Your task to perform on an android device: Go to Reddit.com Image 0: 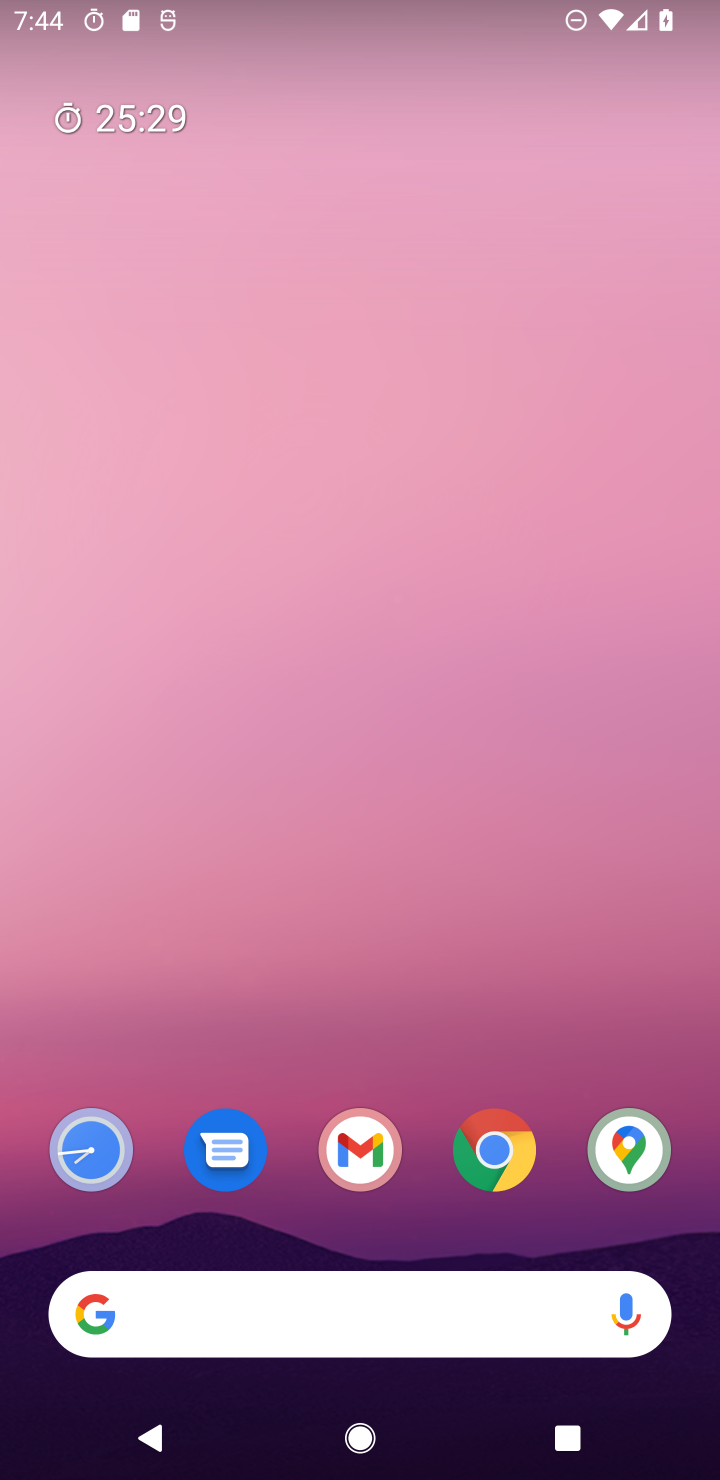
Step 0: drag from (495, 1130) to (519, 117)
Your task to perform on an android device: Go to Reddit.com Image 1: 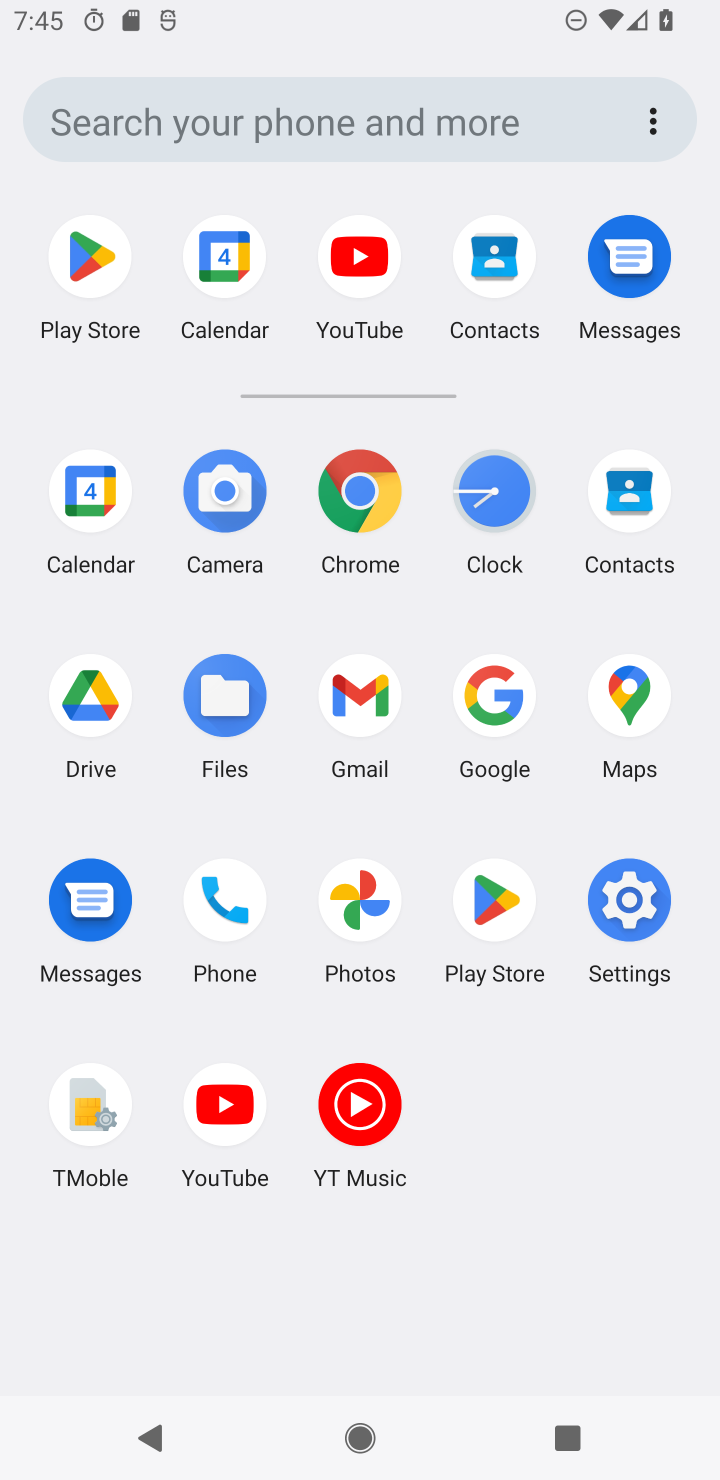
Step 1: click (357, 465)
Your task to perform on an android device: Go to Reddit.com Image 2: 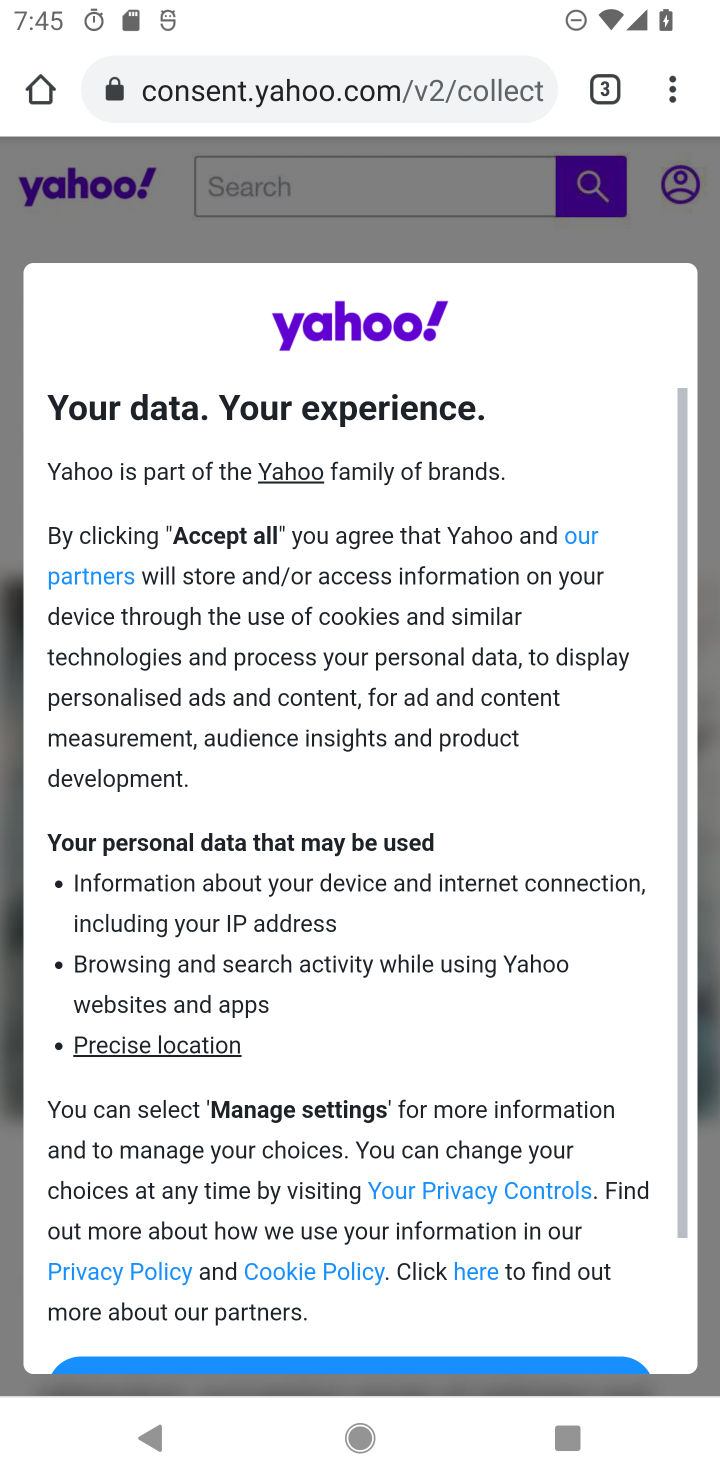
Step 2: click (378, 70)
Your task to perform on an android device: Go to Reddit.com Image 3: 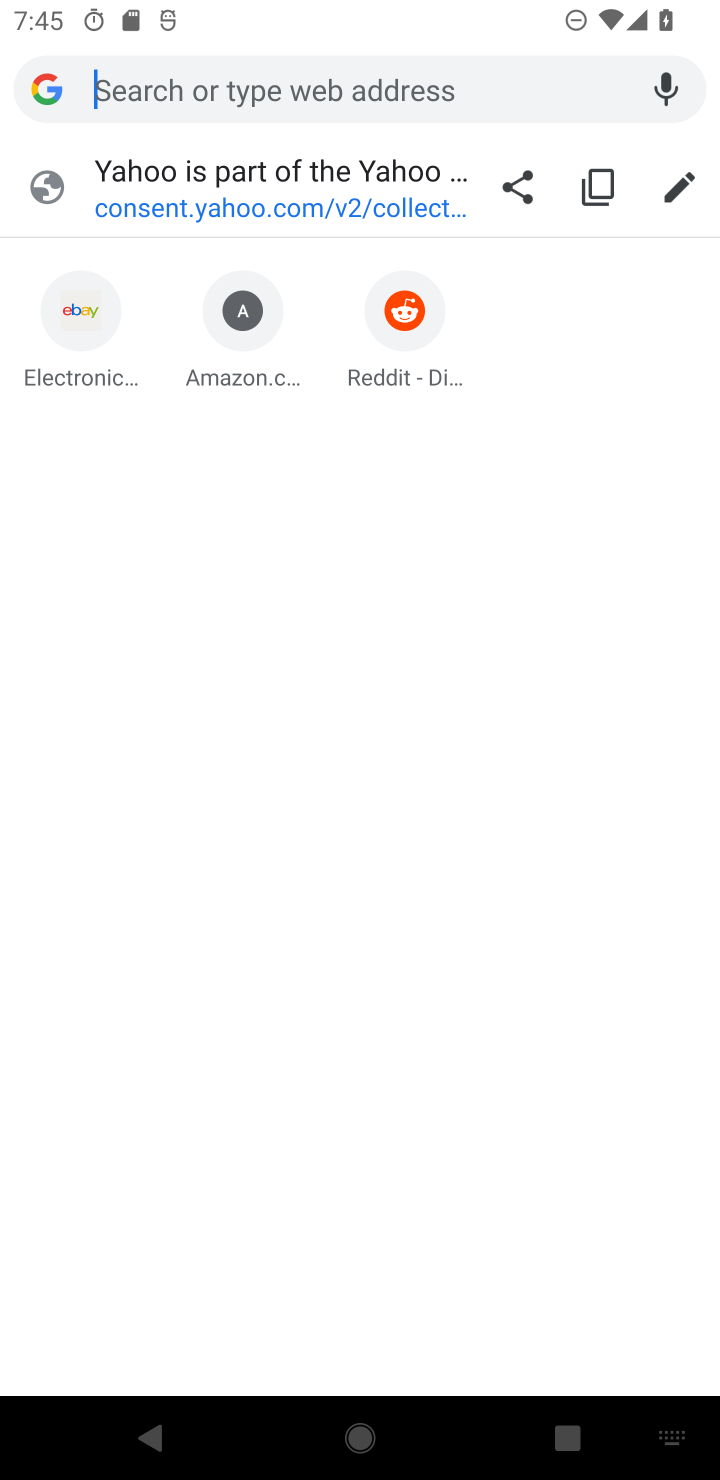
Step 3: type "reddit.com"
Your task to perform on an android device: Go to Reddit.com Image 4: 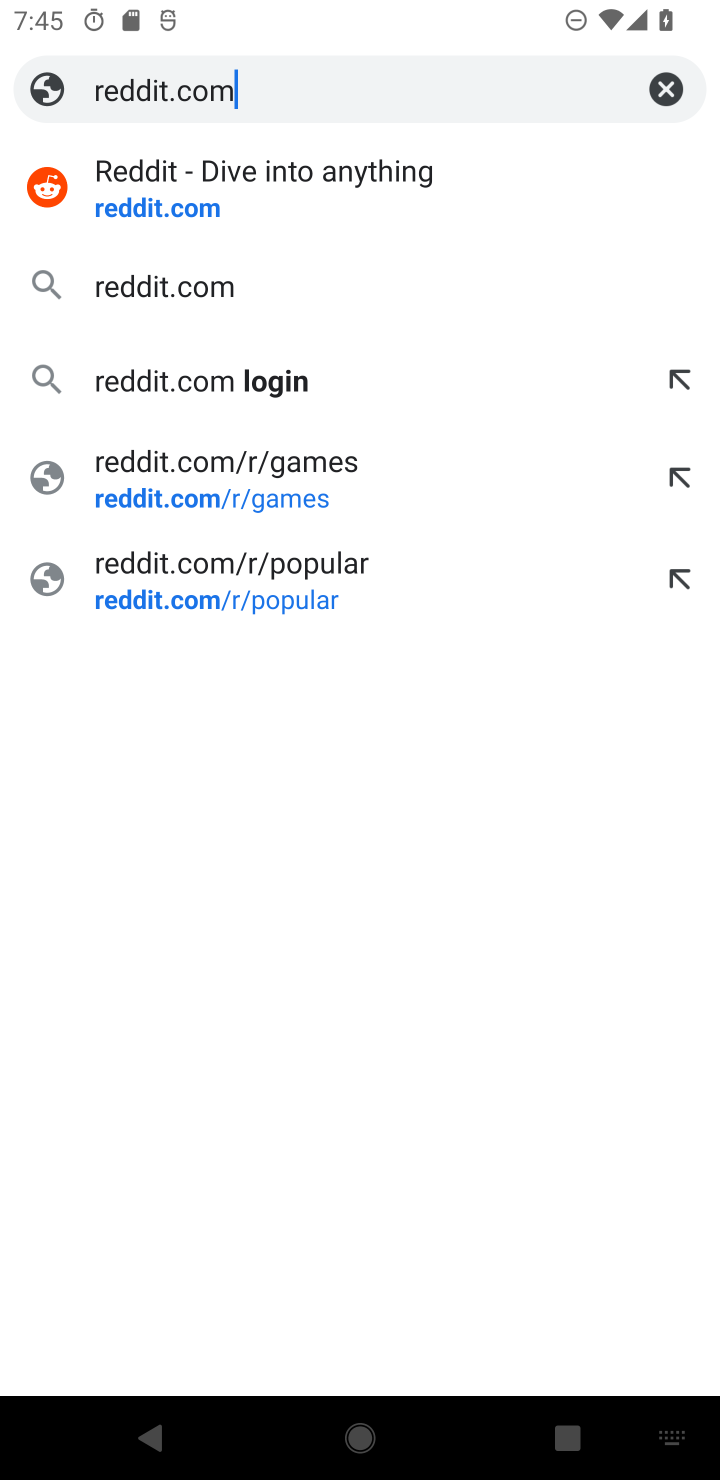
Step 4: click (282, 195)
Your task to perform on an android device: Go to Reddit.com Image 5: 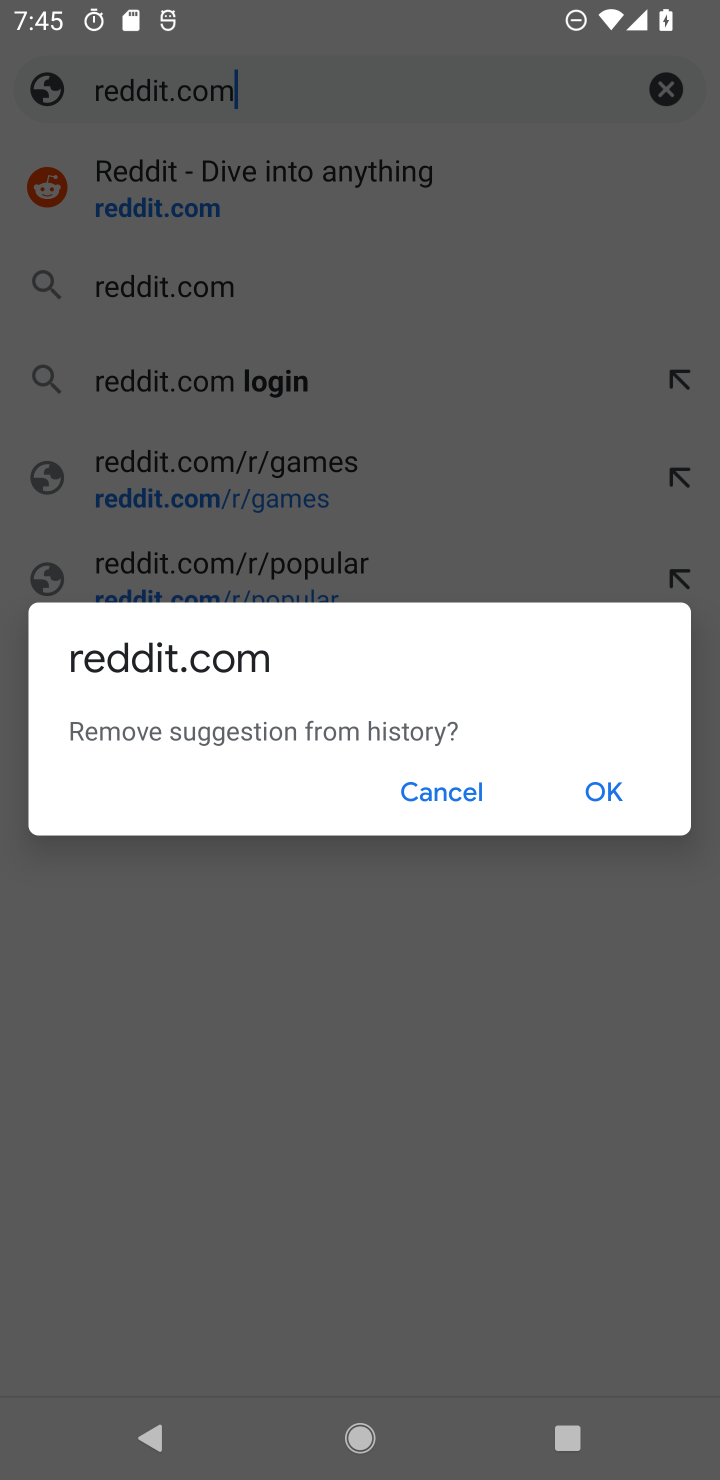
Step 5: click (607, 798)
Your task to perform on an android device: Go to Reddit.com Image 6: 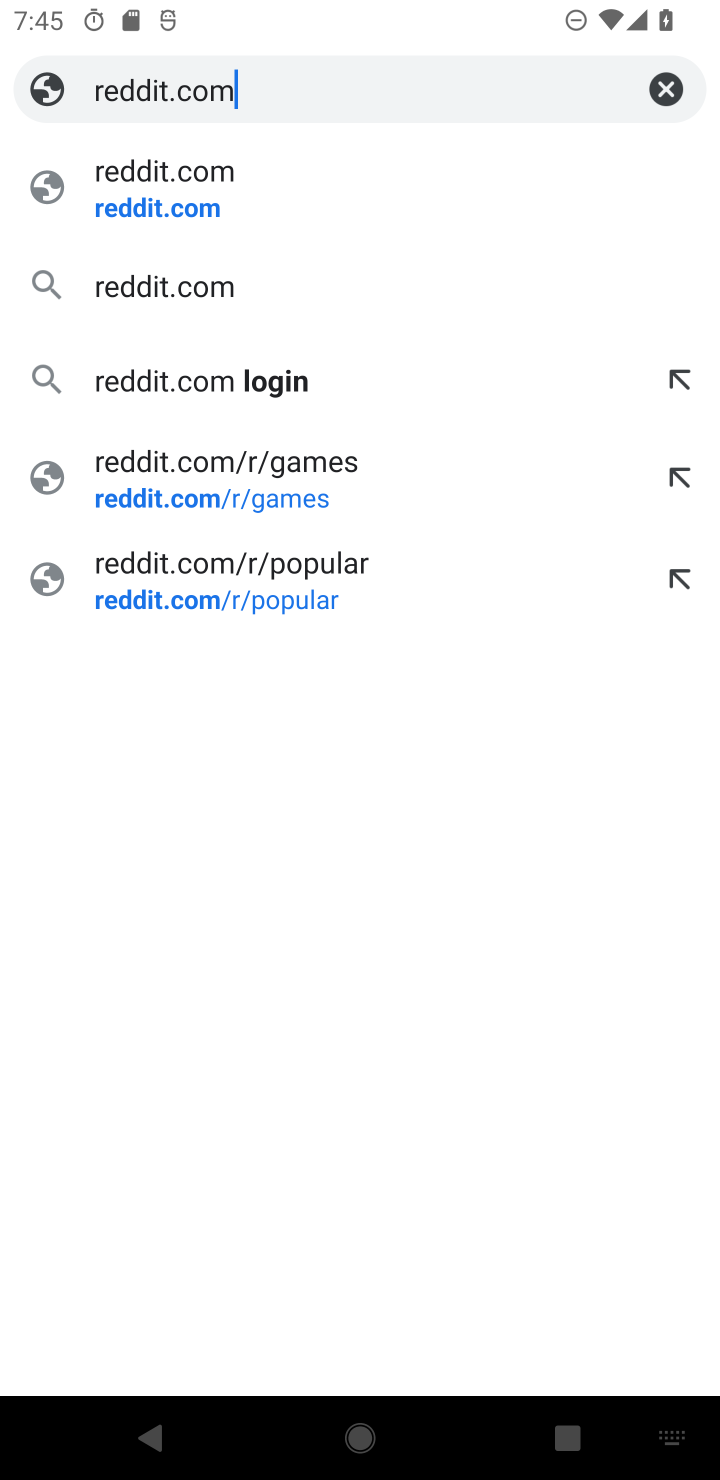
Step 6: click (197, 171)
Your task to perform on an android device: Go to Reddit.com Image 7: 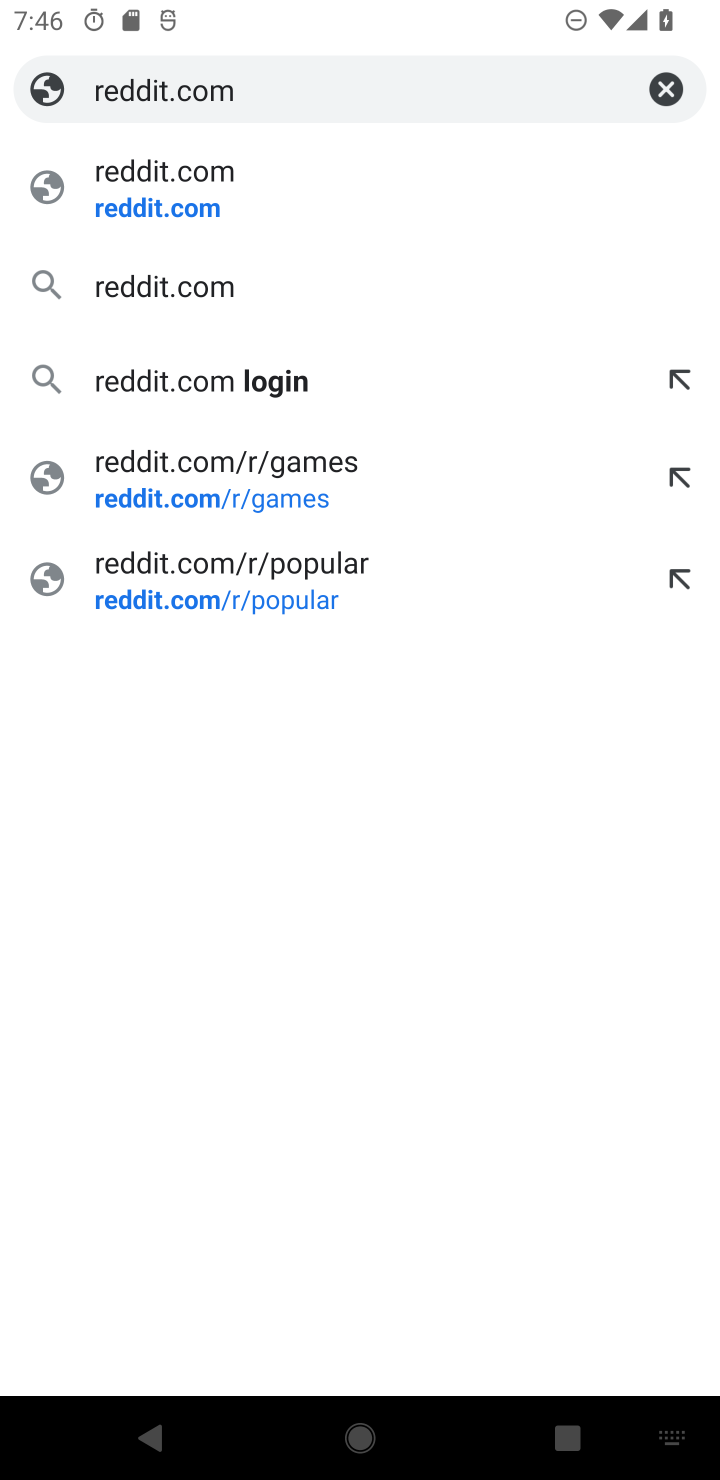
Step 7: click (138, 172)
Your task to perform on an android device: Go to Reddit.com Image 8: 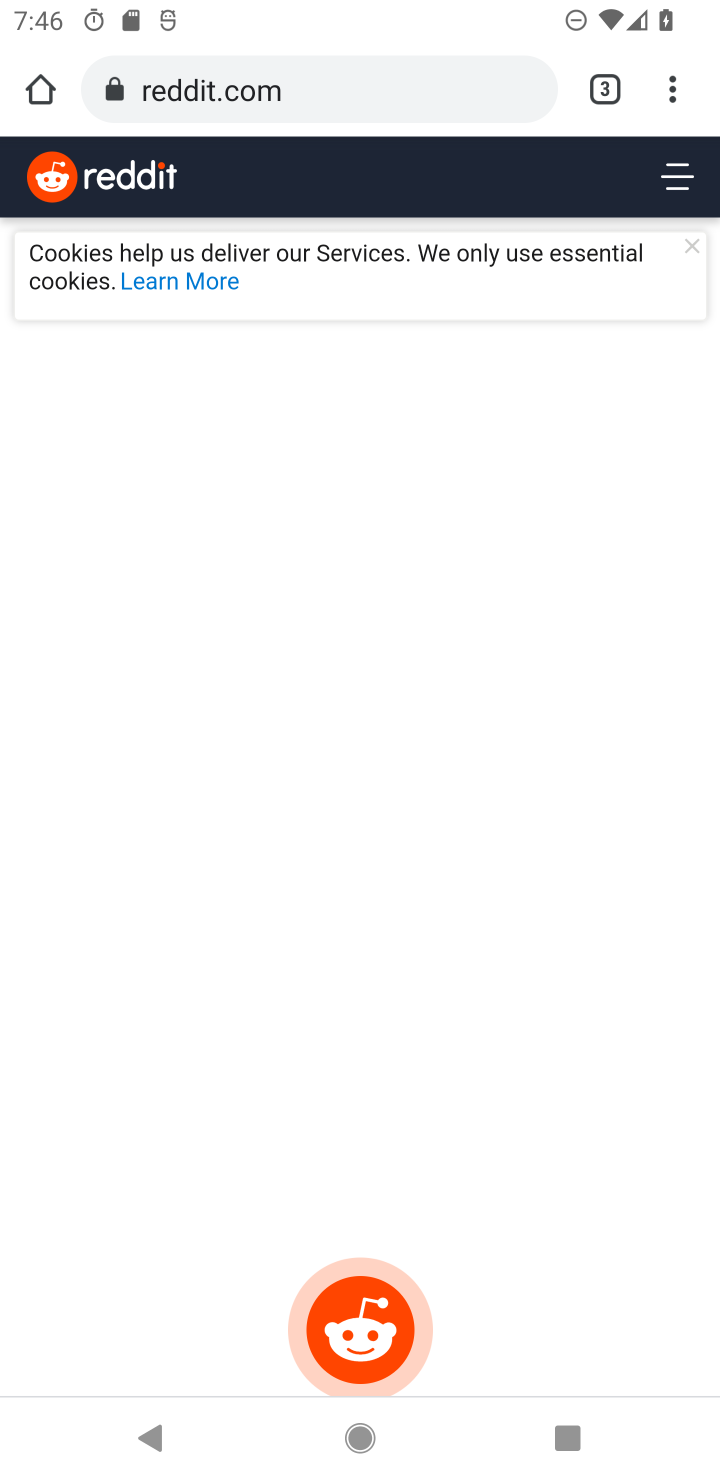
Step 8: task complete